Your task to perform on an android device: When is my next meeting? Image 0: 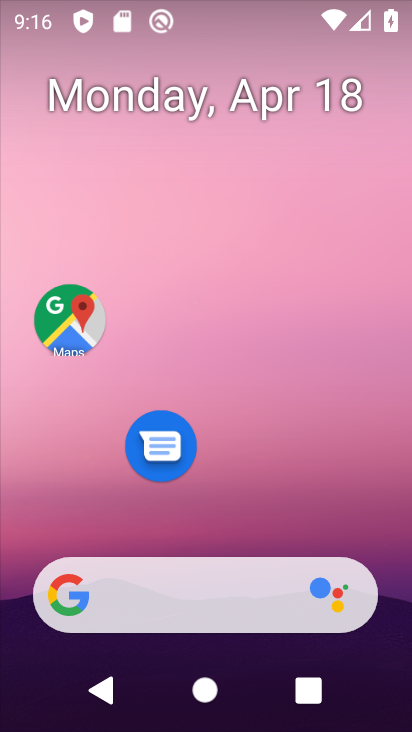
Step 0: press home button
Your task to perform on an android device: When is my next meeting? Image 1: 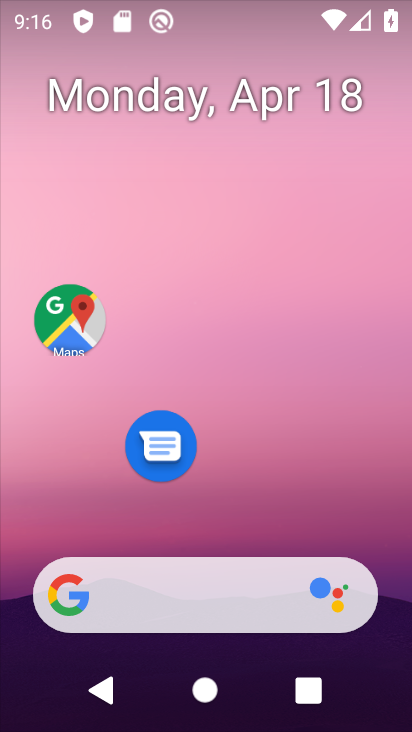
Step 1: drag from (219, 533) to (206, 40)
Your task to perform on an android device: When is my next meeting? Image 2: 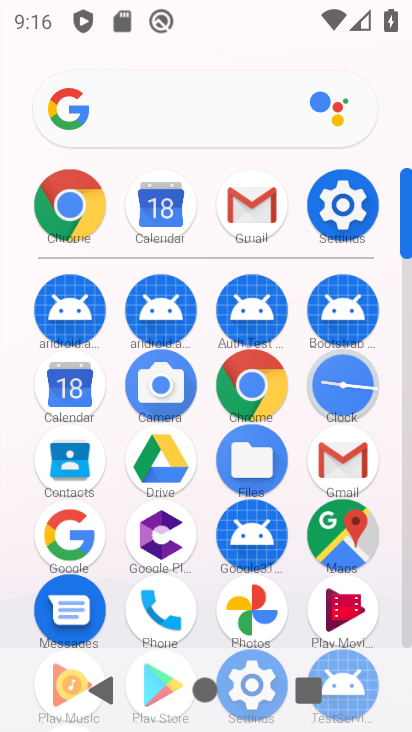
Step 2: click (69, 386)
Your task to perform on an android device: When is my next meeting? Image 3: 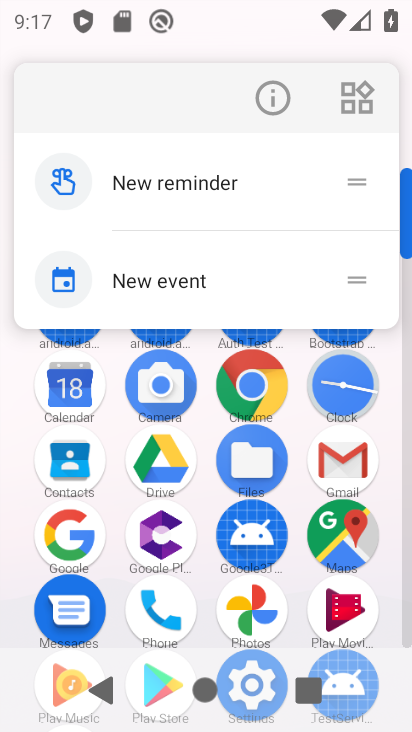
Step 3: click (71, 340)
Your task to perform on an android device: When is my next meeting? Image 4: 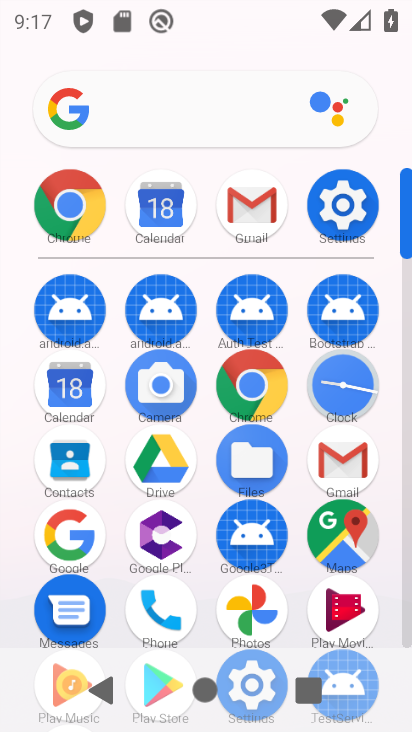
Step 4: click (78, 395)
Your task to perform on an android device: When is my next meeting? Image 5: 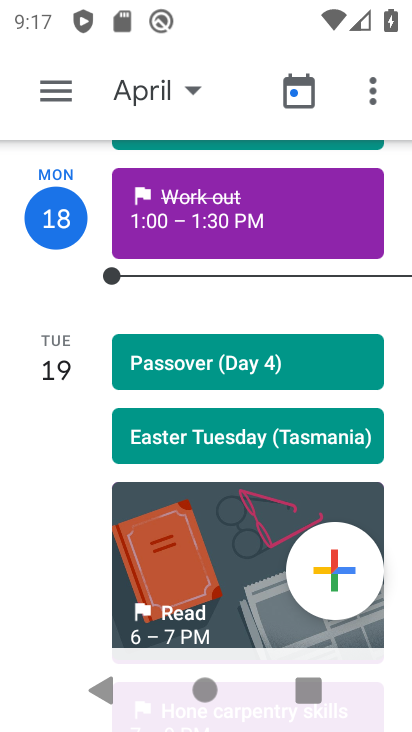
Step 5: drag from (77, 503) to (83, 233)
Your task to perform on an android device: When is my next meeting? Image 6: 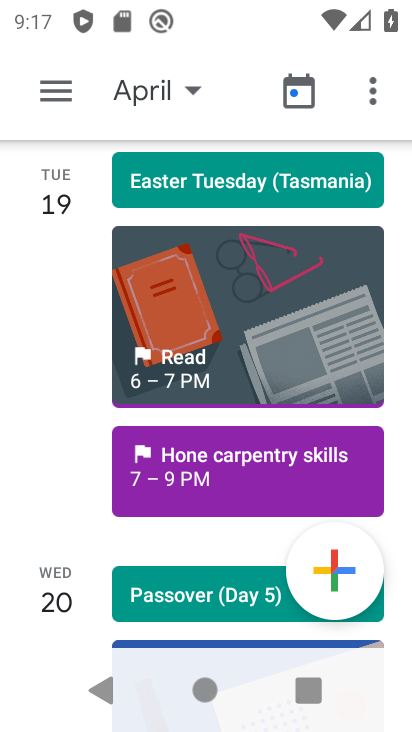
Step 6: click (79, 481)
Your task to perform on an android device: When is my next meeting? Image 7: 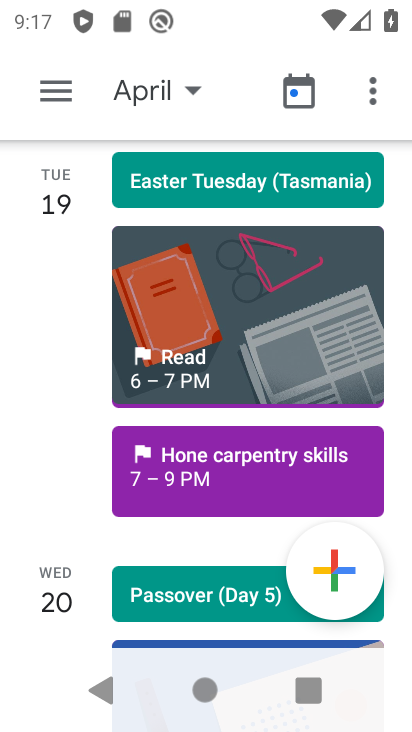
Step 7: click (235, 465)
Your task to perform on an android device: When is my next meeting? Image 8: 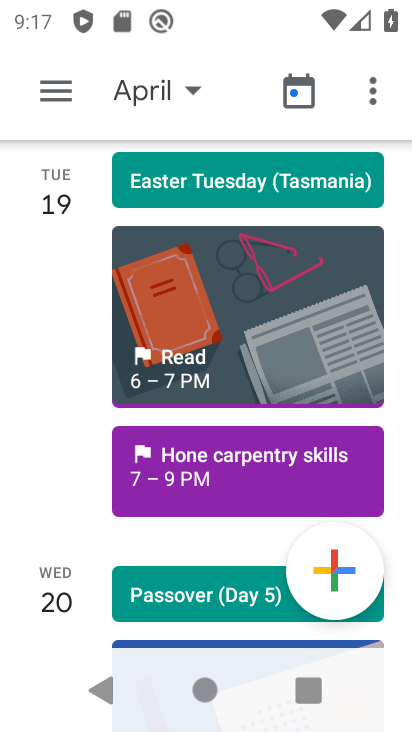
Step 8: task complete